Your task to perform on an android device: turn off picture-in-picture Image 0: 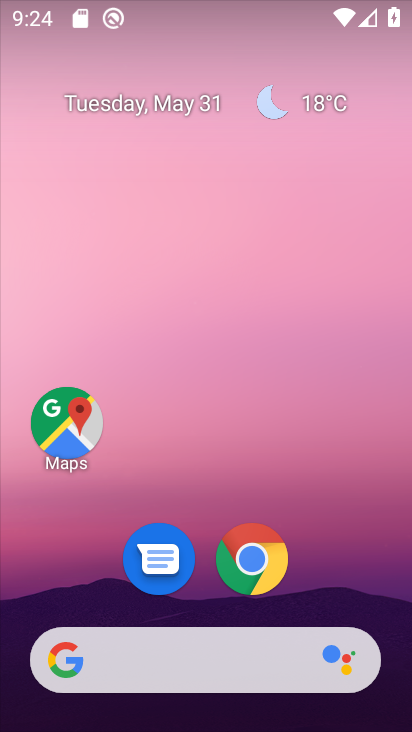
Step 0: click (274, 571)
Your task to perform on an android device: turn off picture-in-picture Image 1: 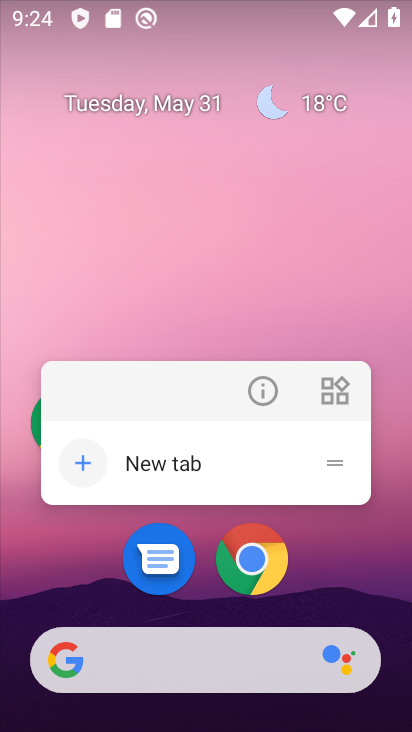
Step 1: click (260, 384)
Your task to perform on an android device: turn off picture-in-picture Image 2: 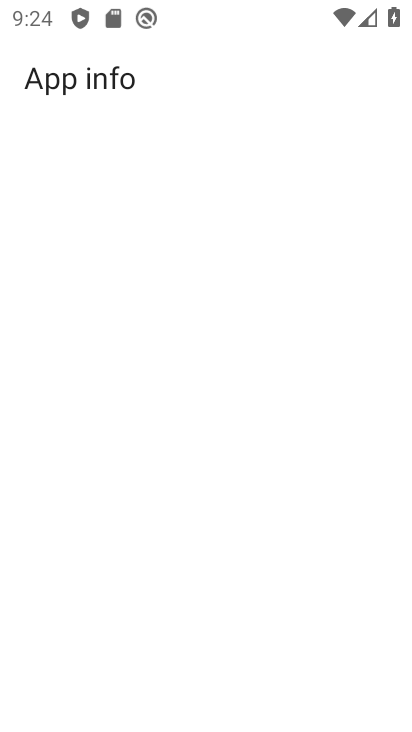
Step 2: drag from (255, 519) to (274, 22)
Your task to perform on an android device: turn off picture-in-picture Image 3: 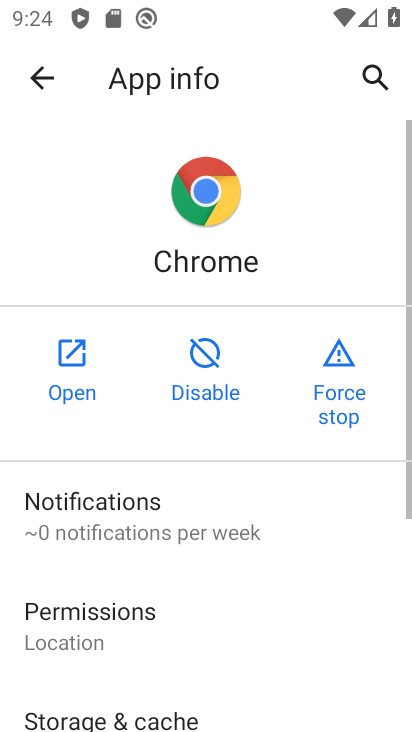
Step 3: drag from (220, 599) to (268, 106)
Your task to perform on an android device: turn off picture-in-picture Image 4: 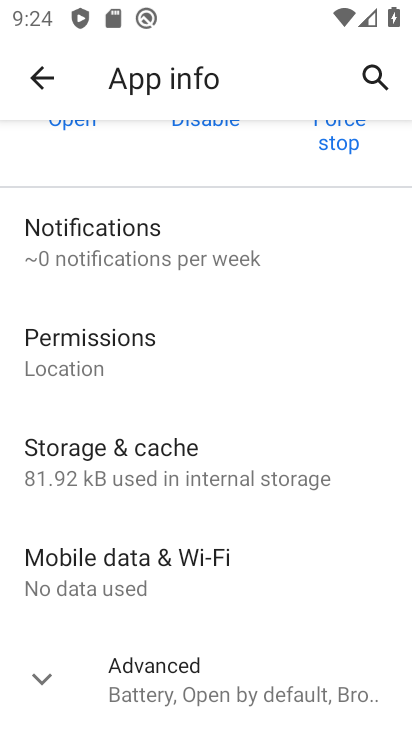
Step 4: click (207, 677)
Your task to perform on an android device: turn off picture-in-picture Image 5: 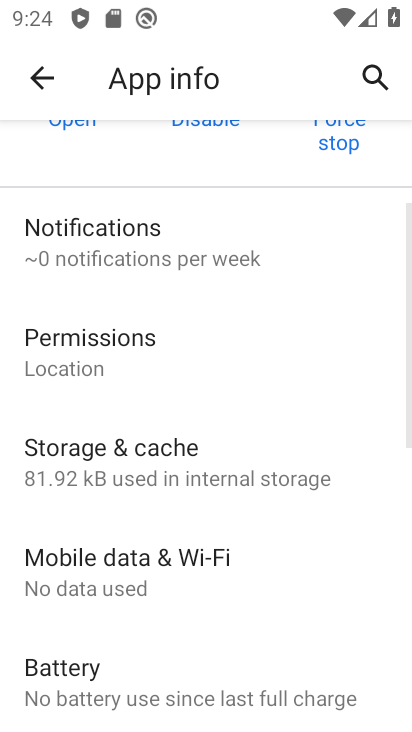
Step 5: drag from (201, 653) to (266, 220)
Your task to perform on an android device: turn off picture-in-picture Image 6: 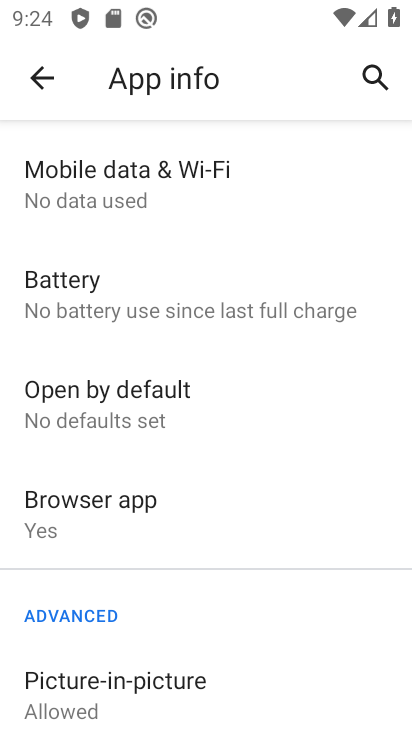
Step 6: click (198, 688)
Your task to perform on an android device: turn off picture-in-picture Image 7: 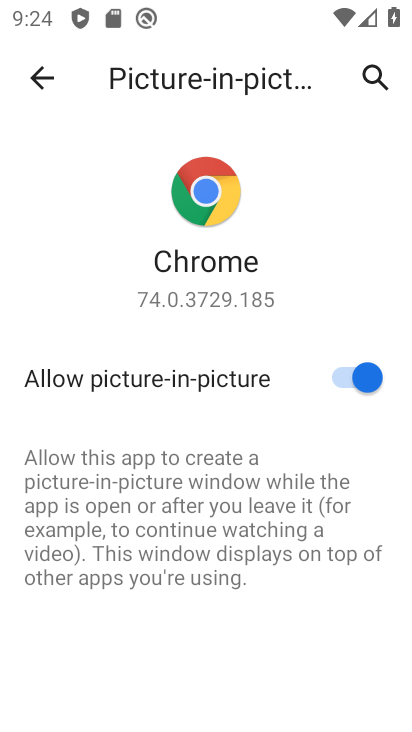
Step 7: click (354, 375)
Your task to perform on an android device: turn off picture-in-picture Image 8: 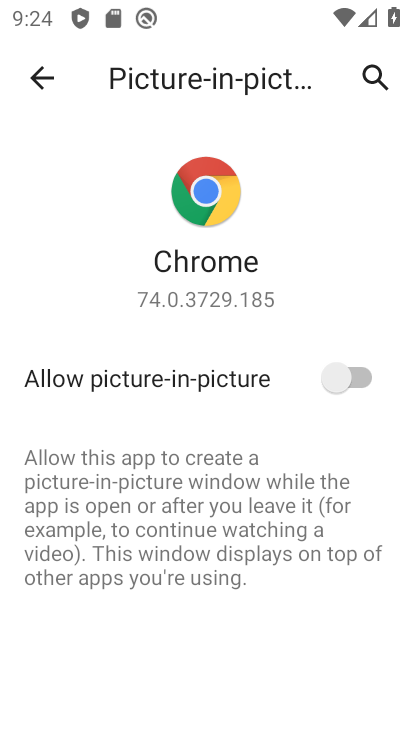
Step 8: task complete